Your task to perform on an android device: Go to Wikipedia Image 0: 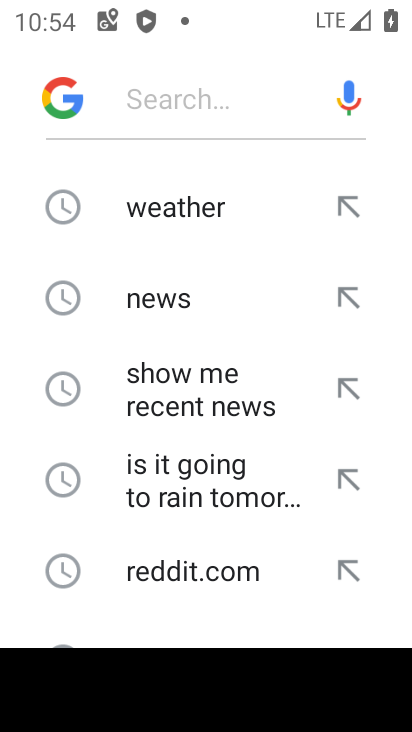
Step 0: press home button
Your task to perform on an android device: Go to Wikipedia Image 1: 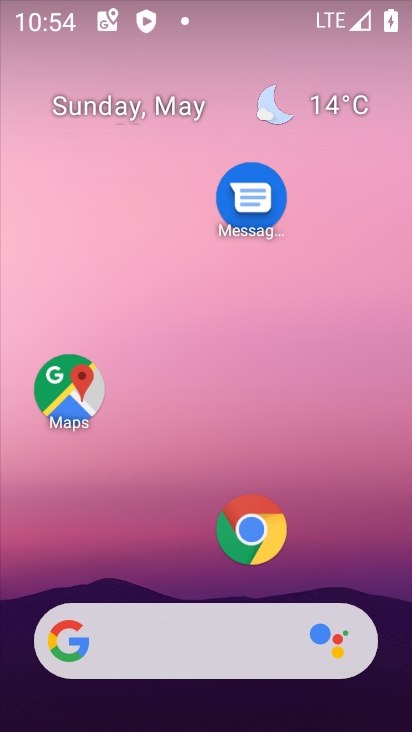
Step 1: click (261, 508)
Your task to perform on an android device: Go to Wikipedia Image 2: 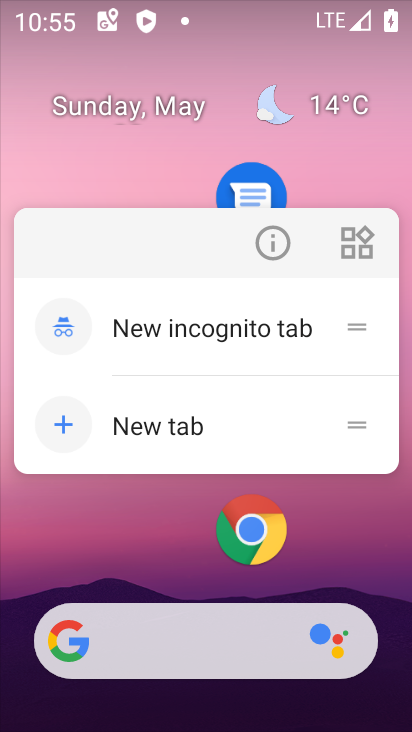
Step 2: click (260, 516)
Your task to perform on an android device: Go to Wikipedia Image 3: 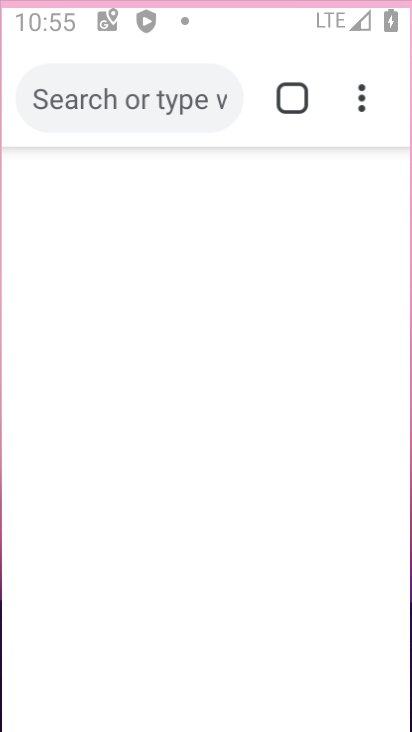
Step 3: click (256, 517)
Your task to perform on an android device: Go to Wikipedia Image 4: 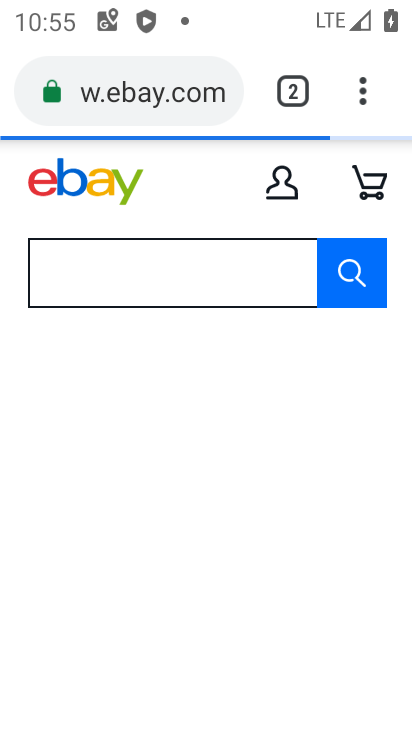
Step 4: click (139, 86)
Your task to perform on an android device: Go to Wikipedia Image 5: 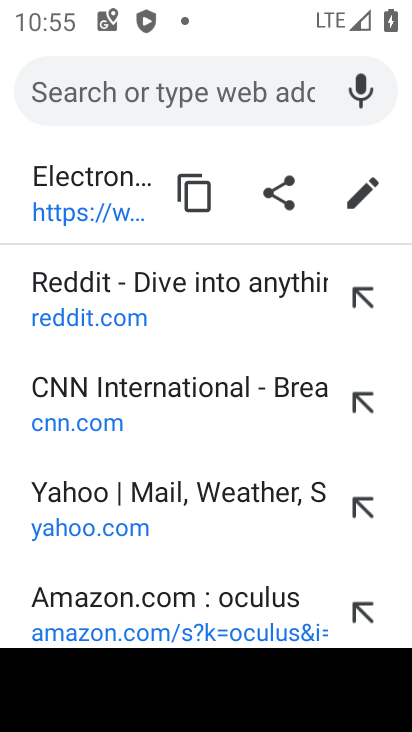
Step 5: type "Wikipedia."
Your task to perform on an android device: Go to Wikipedia Image 6: 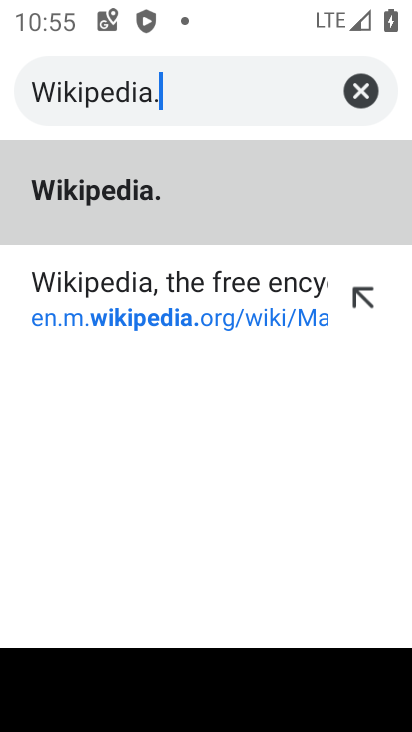
Step 6: click (232, 221)
Your task to perform on an android device: Go to Wikipedia Image 7: 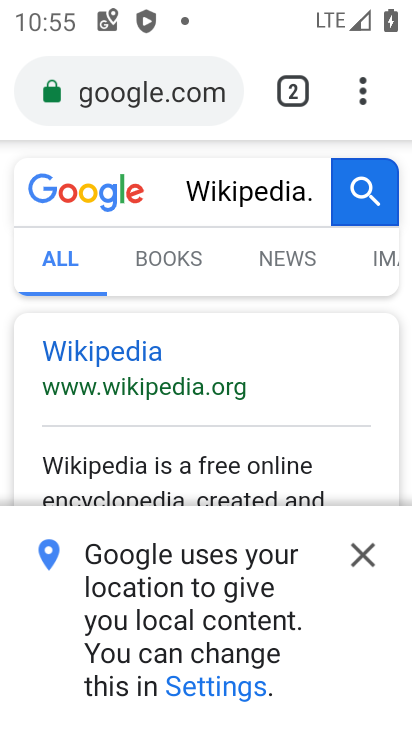
Step 7: task complete